Your task to perform on an android device: Search for vegetarian restaurants on Maps Image 0: 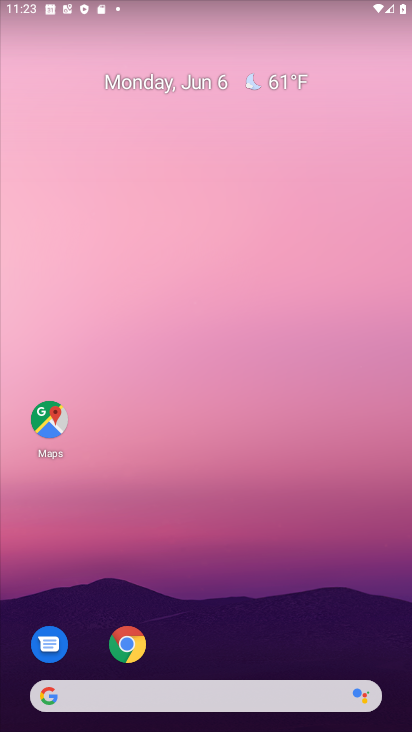
Step 0: drag from (107, 531) to (84, 112)
Your task to perform on an android device: Search for vegetarian restaurants on Maps Image 1: 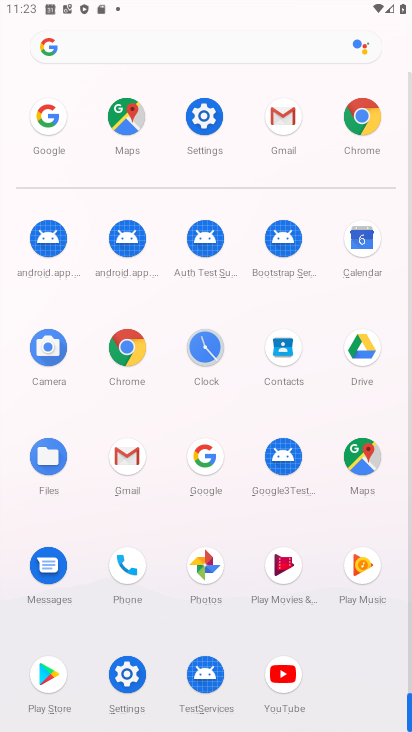
Step 1: click (362, 448)
Your task to perform on an android device: Search for vegetarian restaurants on Maps Image 2: 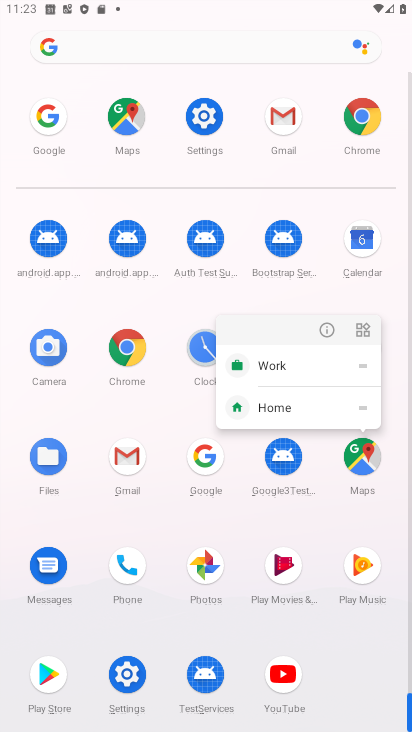
Step 2: click (367, 483)
Your task to perform on an android device: Search for vegetarian restaurants on Maps Image 3: 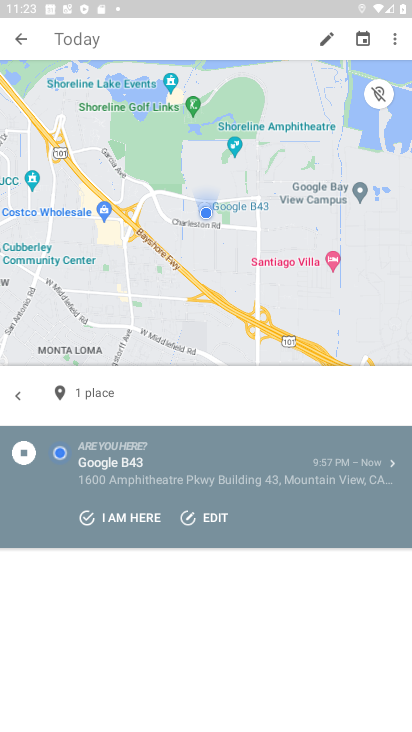
Step 3: click (14, 49)
Your task to perform on an android device: Search for vegetarian restaurants on Maps Image 4: 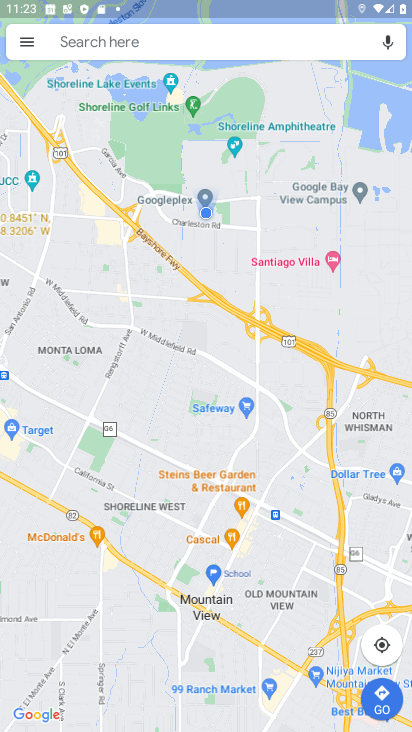
Step 4: click (273, 41)
Your task to perform on an android device: Search for vegetarian restaurants on Maps Image 5: 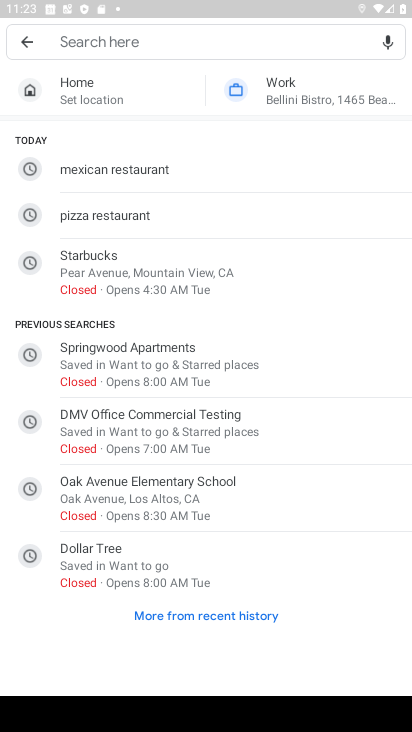
Step 5: type "vegetarian"
Your task to perform on an android device: Search for vegetarian restaurants on Maps Image 6: 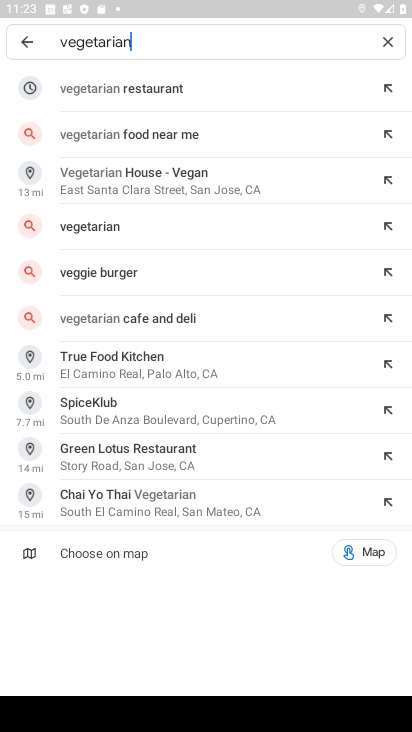
Step 6: click (204, 94)
Your task to perform on an android device: Search for vegetarian restaurants on Maps Image 7: 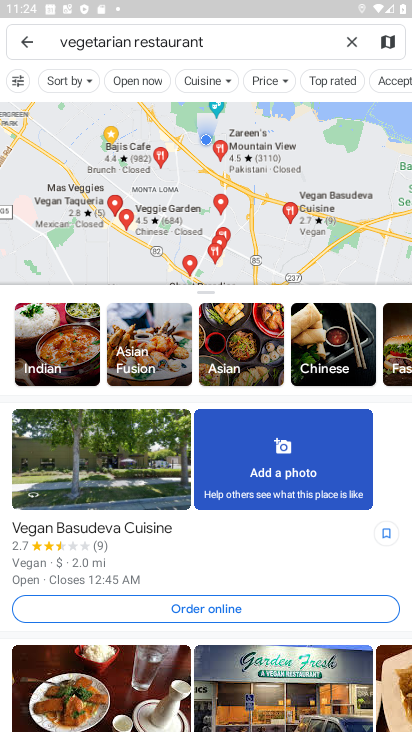
Step 7: task complete